Your task to perform on an android device: install app "Pinterest" Image 0: 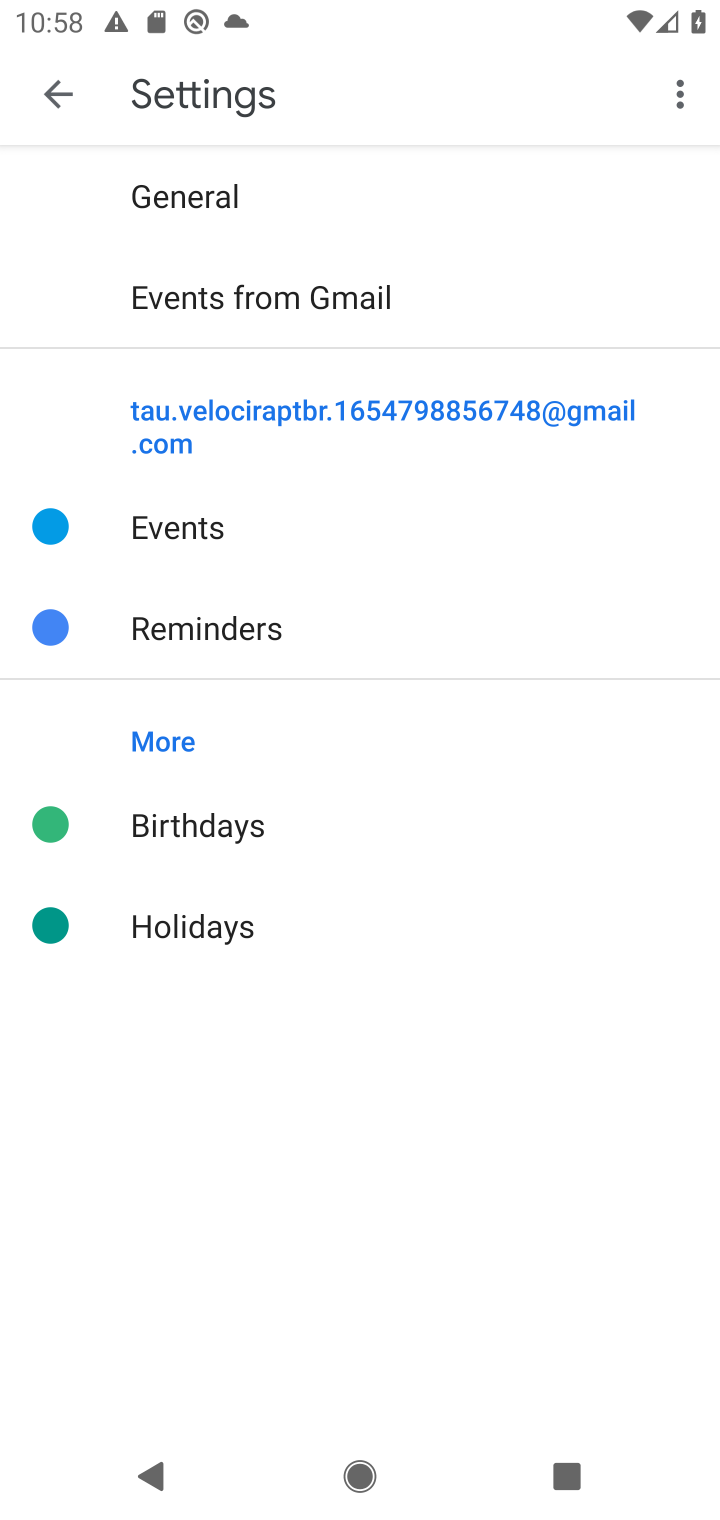
Step 0: press home button
Your task to perform on an android device: install app "Pinterest" Image 1: 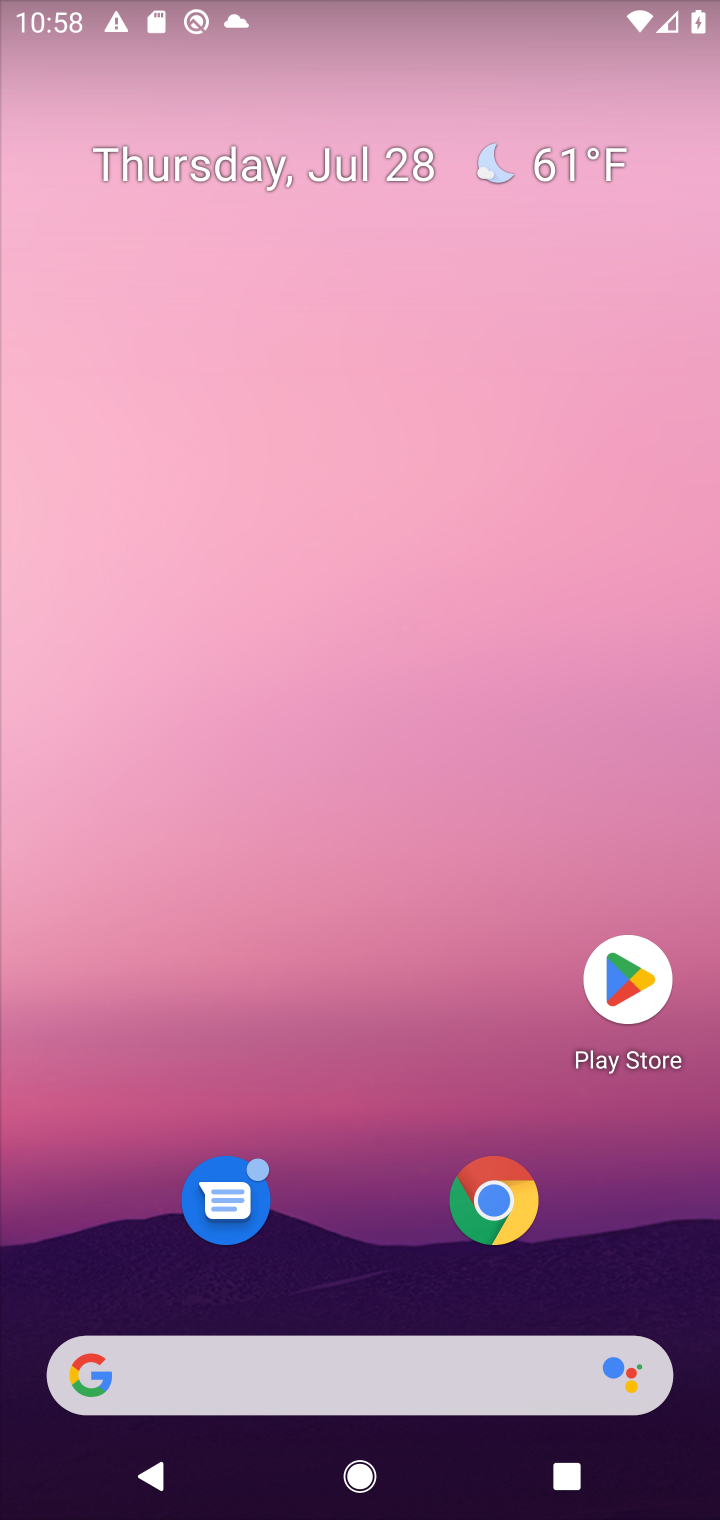
Step 1: click (611, 968)
Your task to perform on an android device: install app "Pinterest" Image 2: 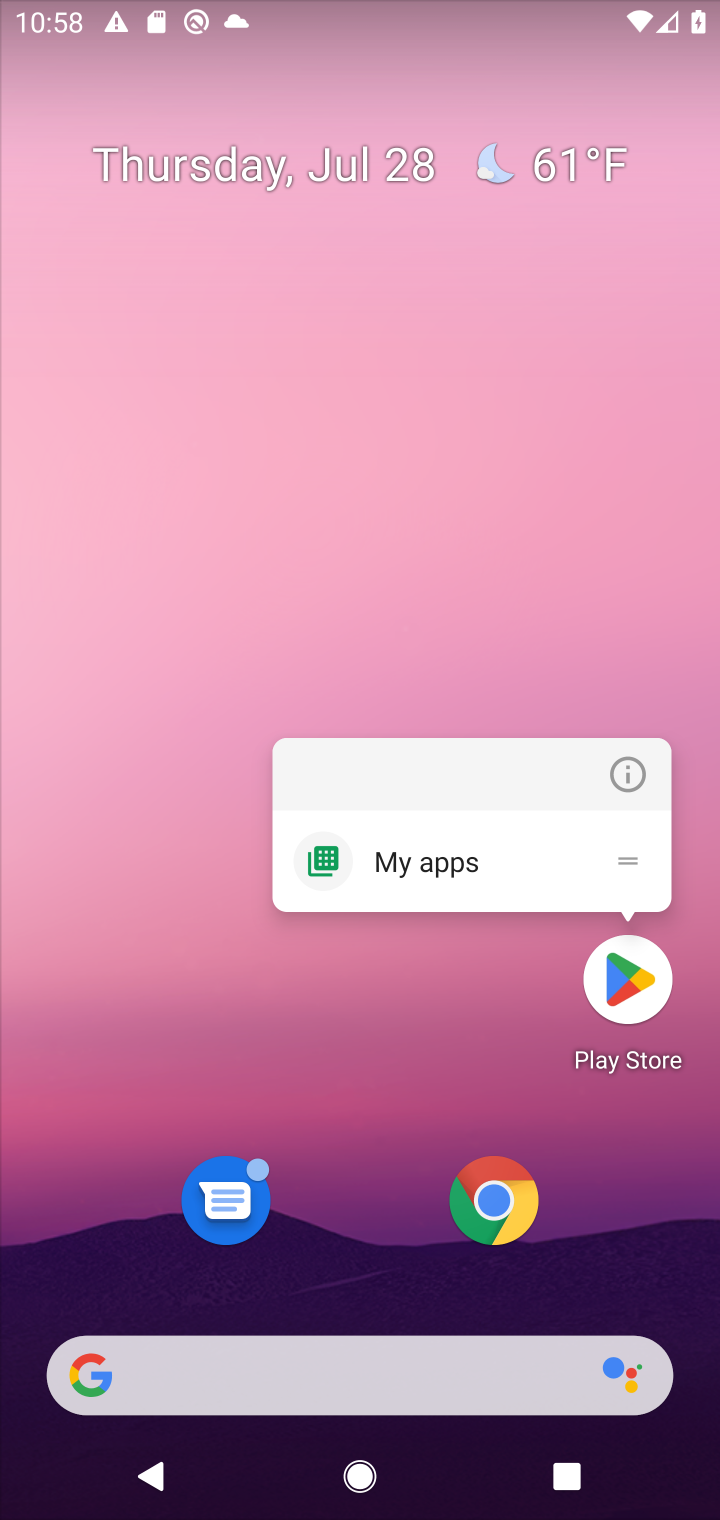
Step 2: click (611, 975)
Your task to perform on an android device: install app "Pinterest" Image 3: 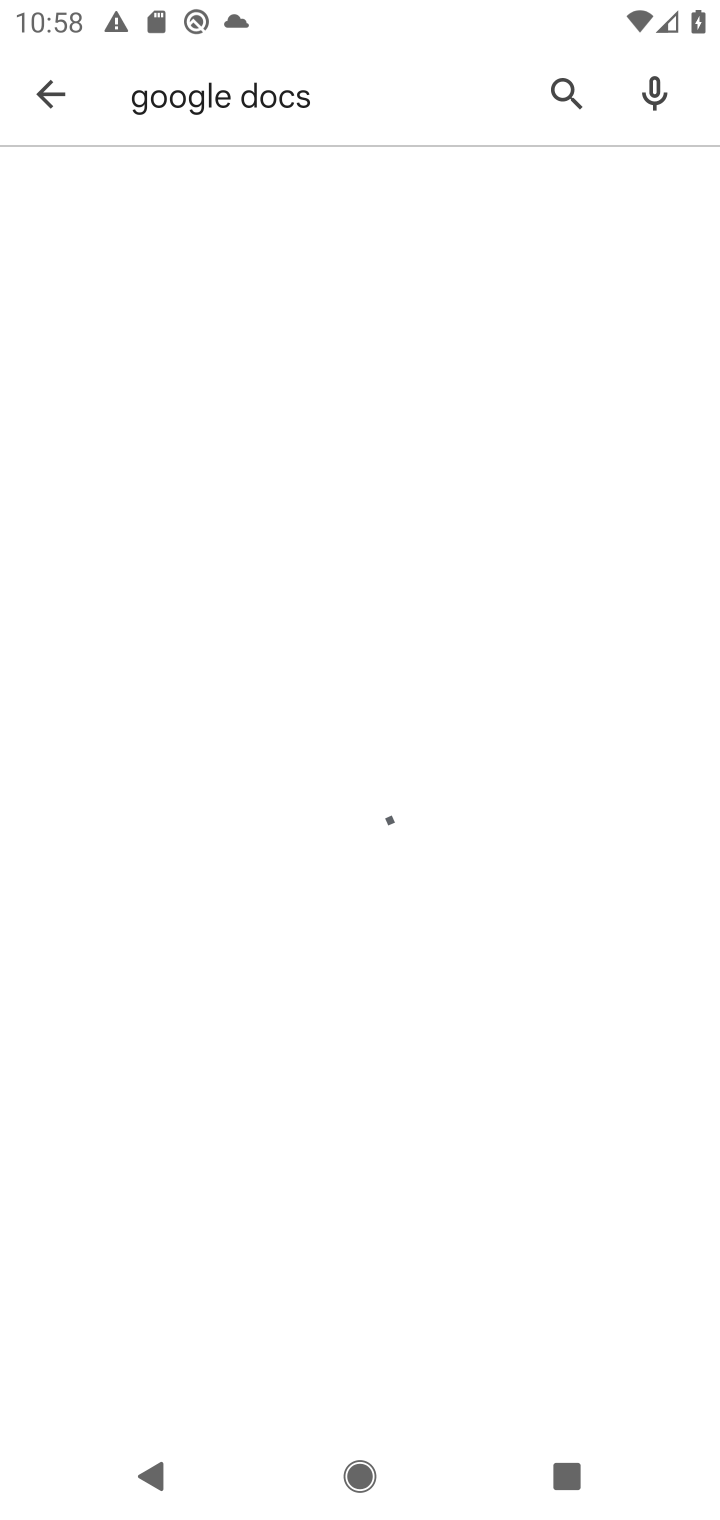
Step 3: click (565, 93)
Your task to perform on an android device: install app "Pinterest" Image 4: 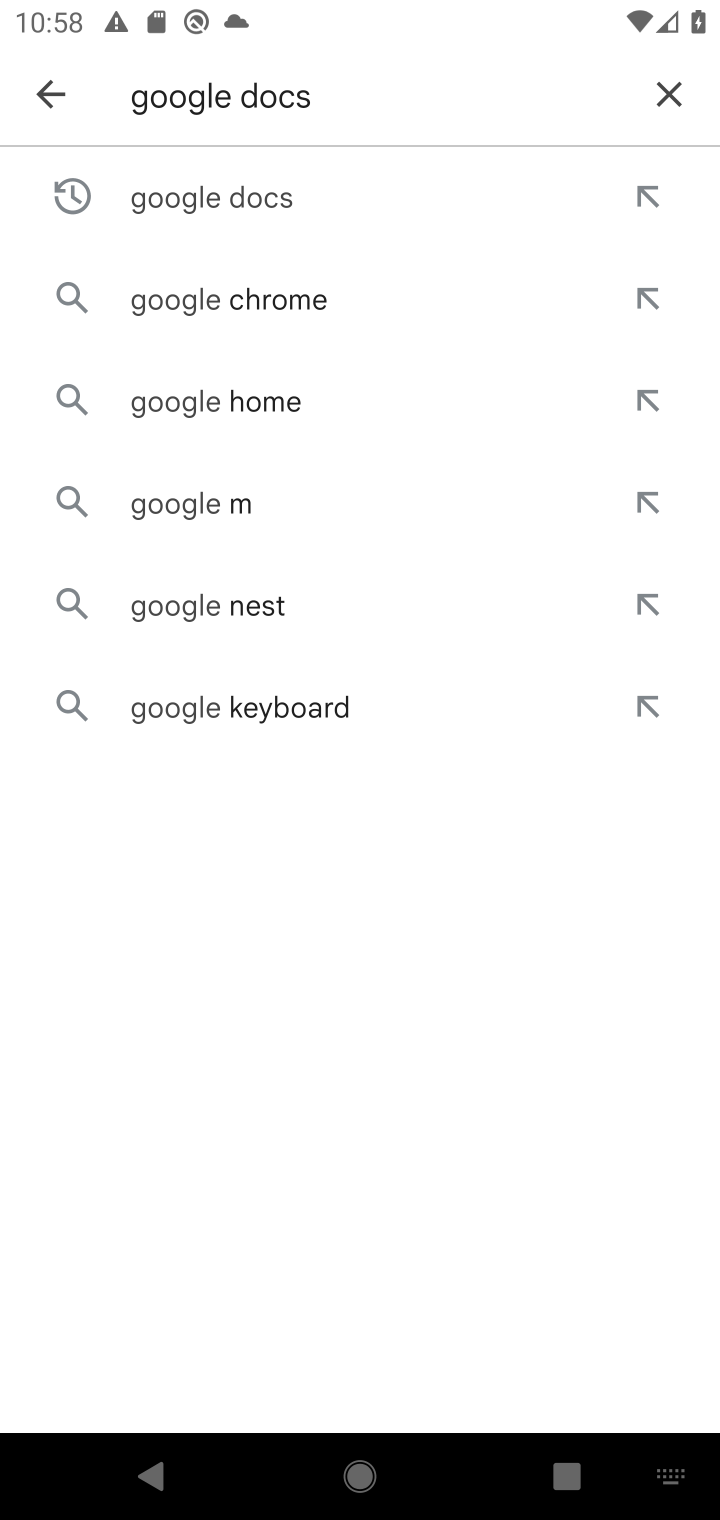
Step 4: click (656, 75)
Your task to perform on an android device: install app "Pinterest" Image 5: 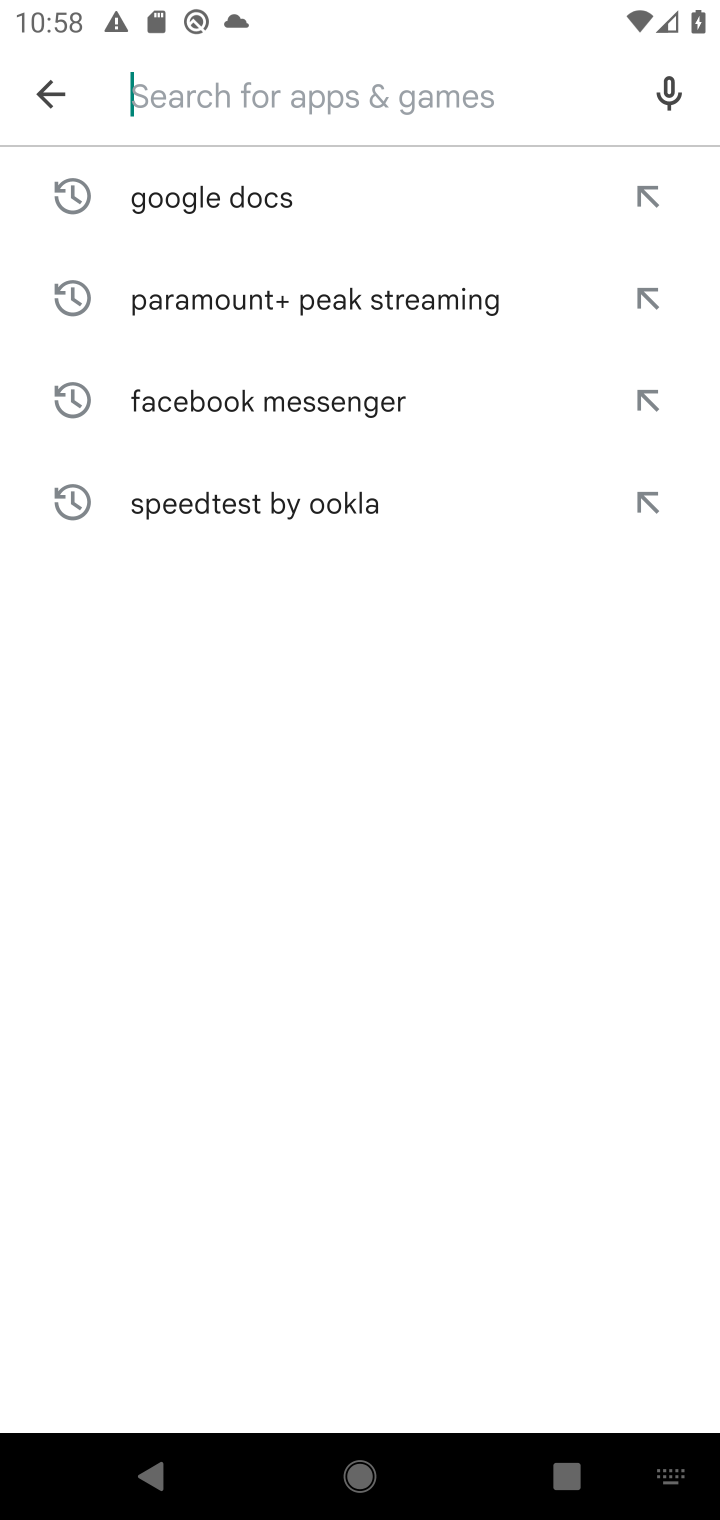
Step 5: type "Pinterest"
Your task to perform on an android device: install app "Pinterest" Image 6: 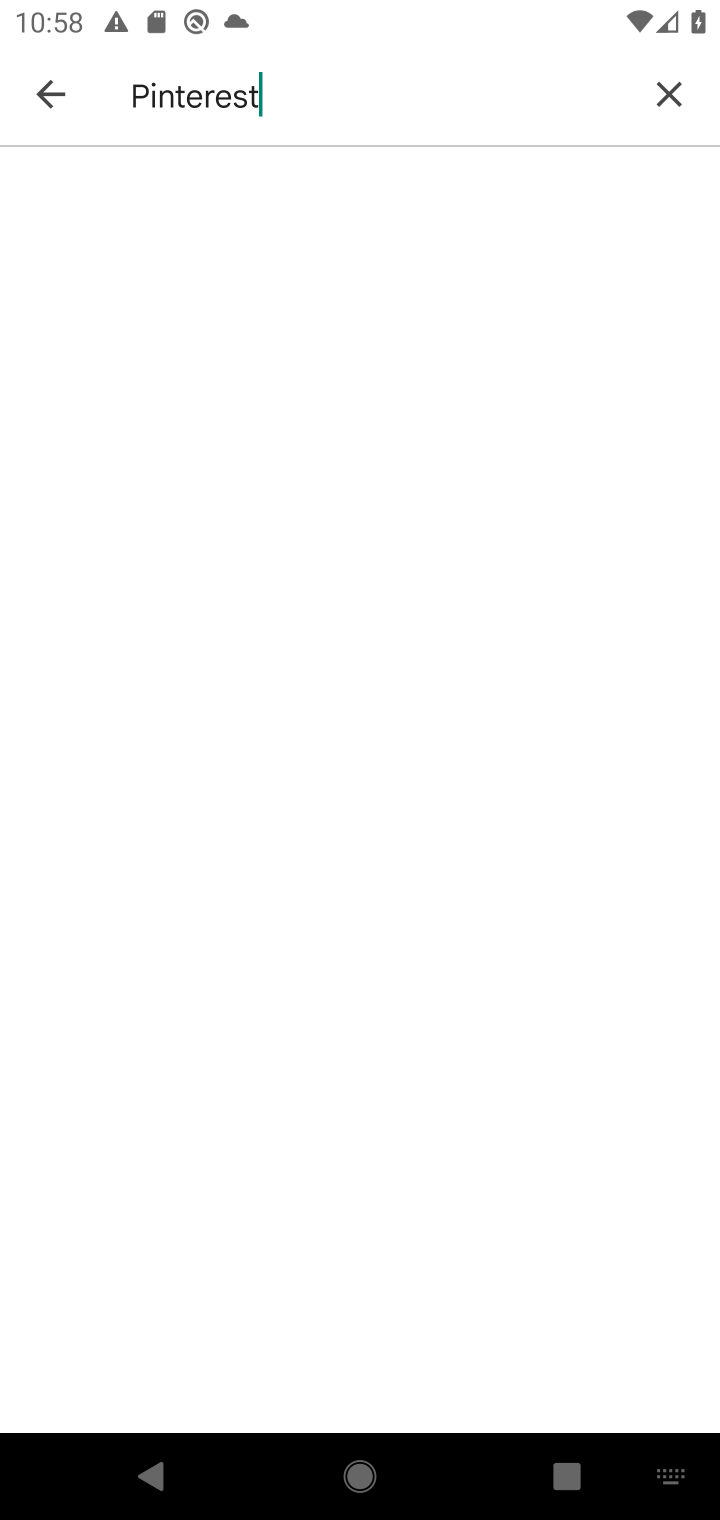
Step 6: click (301, 92)
Your task to perform on an android device: install app "Pinterest" Image 7: 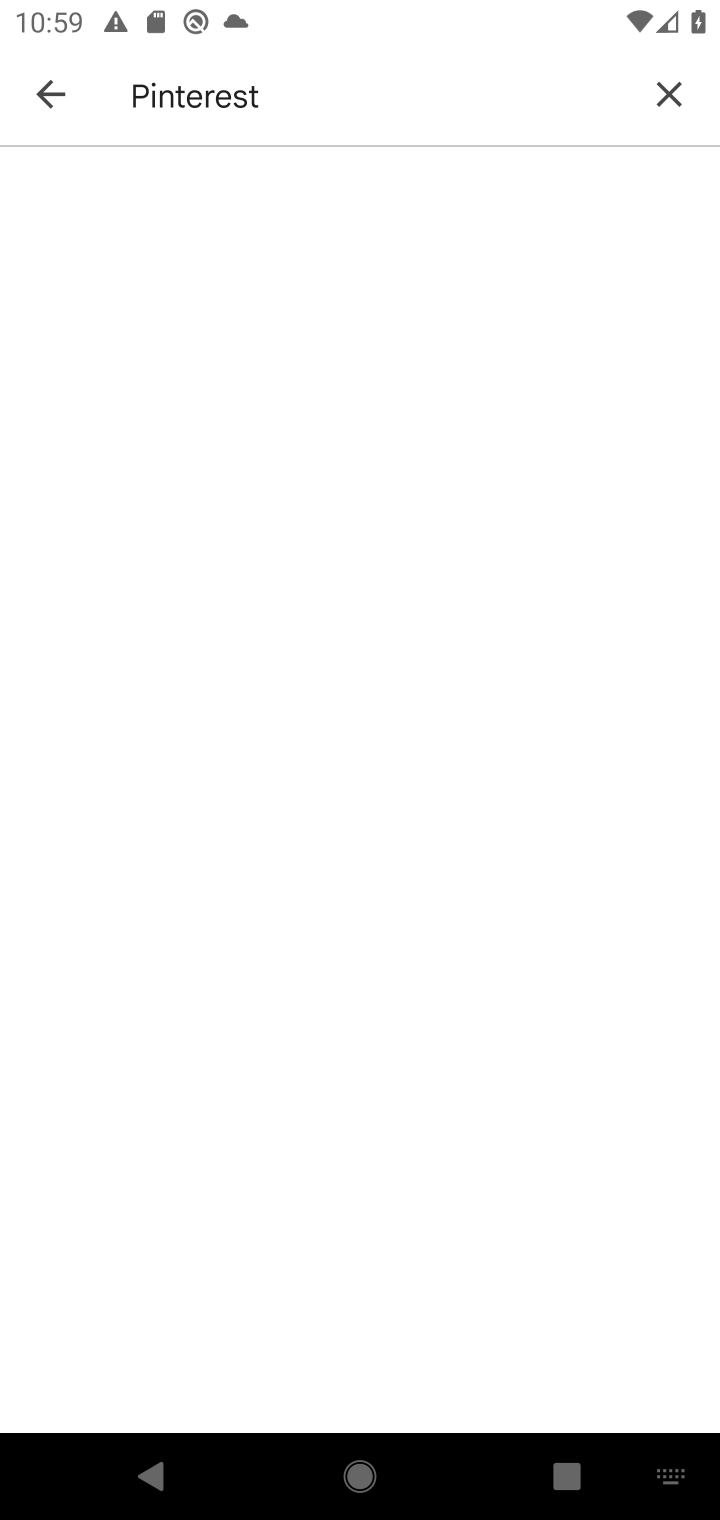
Step 7: task complete